Your task to perform on an android device: Open calendar and show me the third week of next month Image 0: 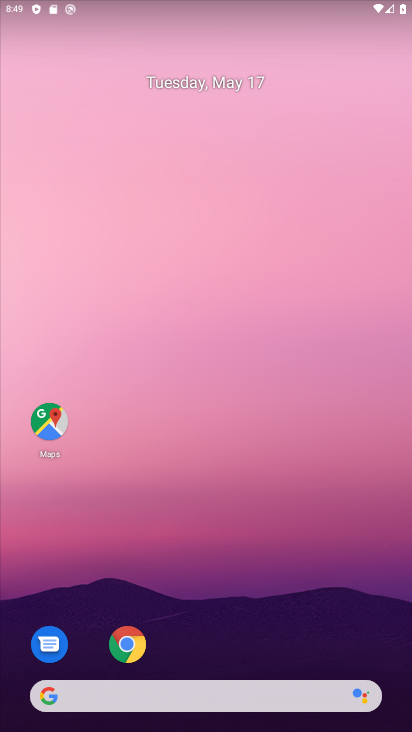
Step 0: press home button
Your task to perform on an android device: Open calendar and show me the third week of next month Image 1: 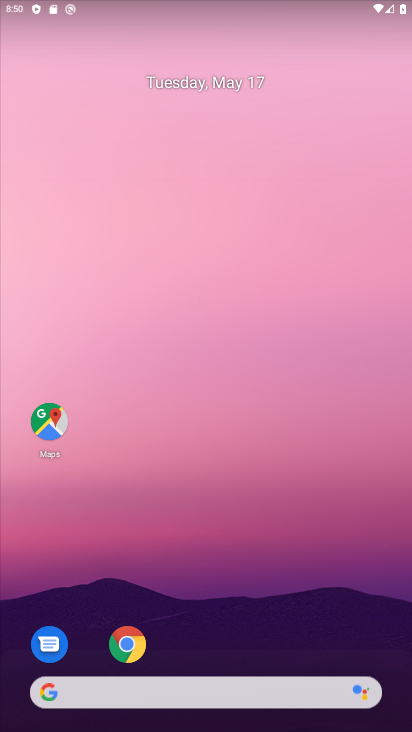
Step 1: drag from (216, 653) to (229, 99)
Your task to perform on an android device: Open calendar and show me the third week of next month Image 2: 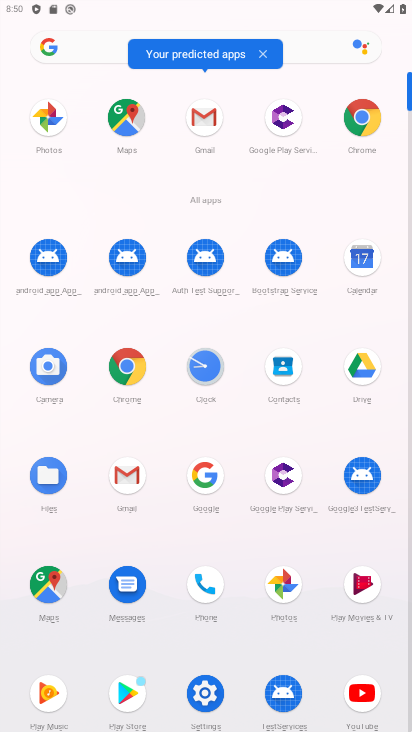
Step 2: click (363, 255)
Your task to perform on an android device: Open calendar and show me the third week of next month Image 3: 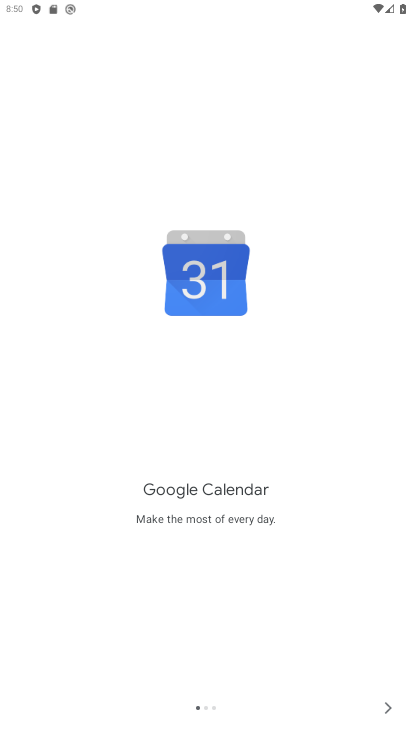
Step 3: click (387, 702)
Your task to perform on an android device: Open calendar and show me the third week of next month Image 4: 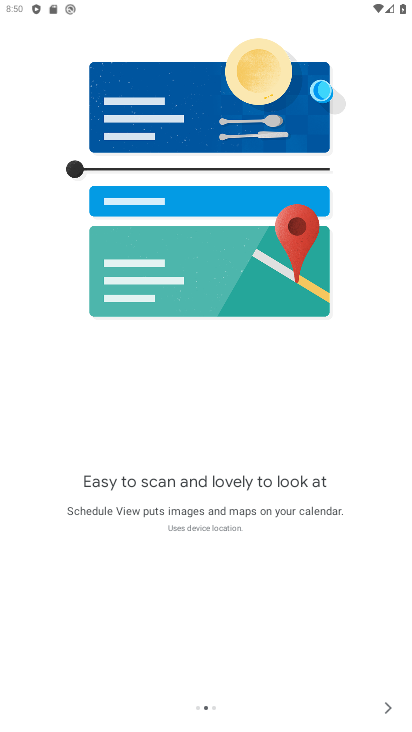
Step 4: click (387, 702)
Your task to perform on an android device: Open calendar and show me the third week of next month Image 5: 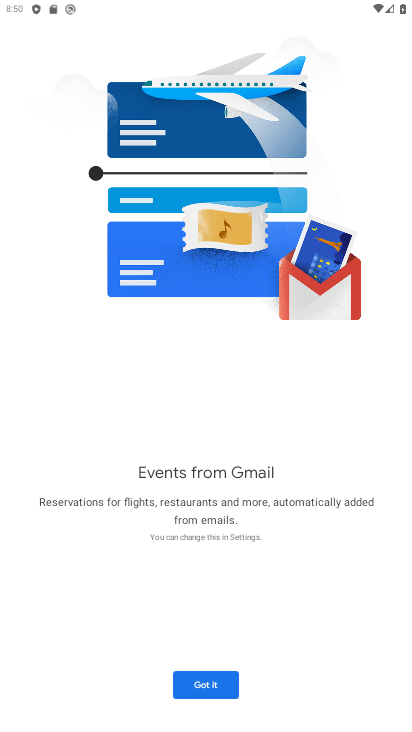
Step 5: click (210, 682)
Your task to perform on an android device: Open calendar and show me the third week of next month Image 6: 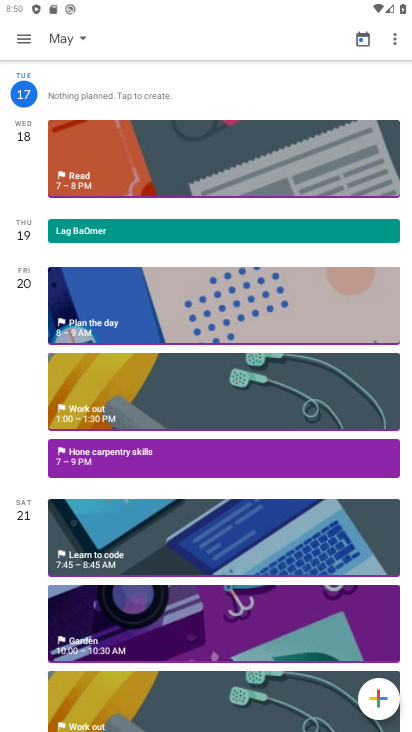
Step 6: click (24, 36)
Your task to perform on an android device: Open calendar and show me the third week of next month Image 7: 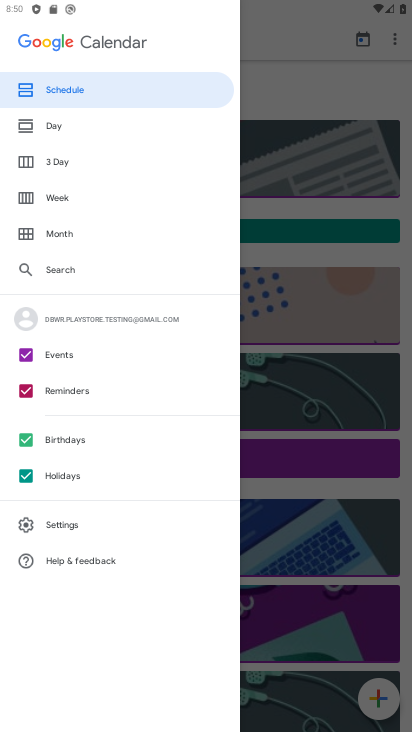
Step 7: click (52, 193)
Your task to perform on an android device: Open calendar and show me the third week of next month Image 8: 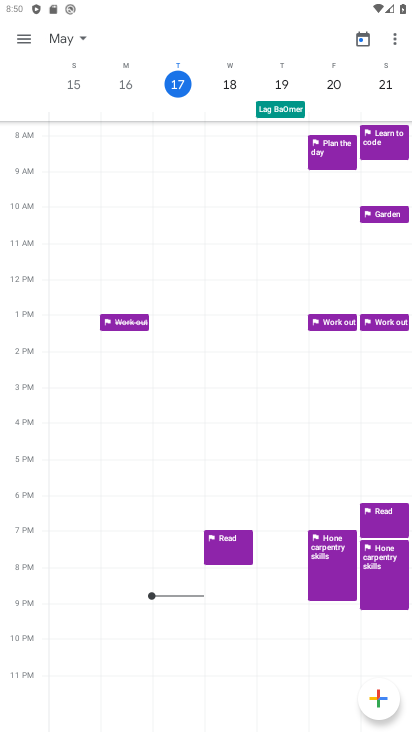
Step 8: drag from (382, 80) to (37, 89)
Your task to perform on an android device: Open calendar and show me the third week of next month Image 9: 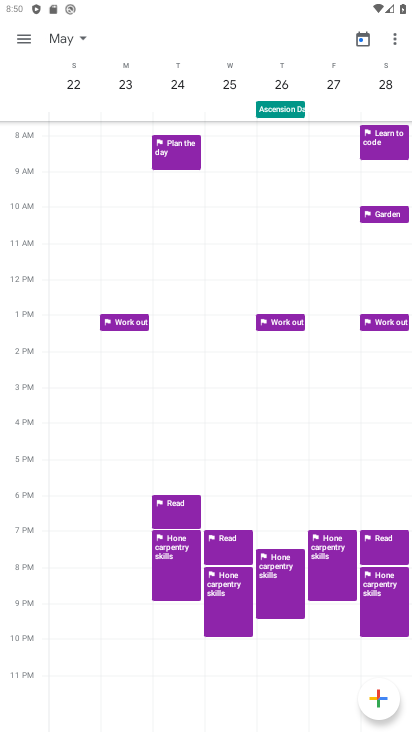
Step 9: drag from (383, 77) to (48, 80)
Your task to perform on an android device: Open calendar and show me the third week of next month Image 10: 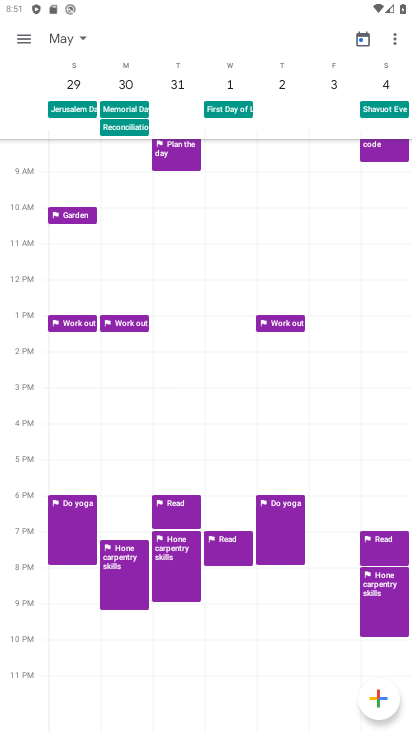
Step 10: drag from (374, 78) to (87, 73)
Your task to perform on an android device: Open calendar and show me the third week of next month Image 11: 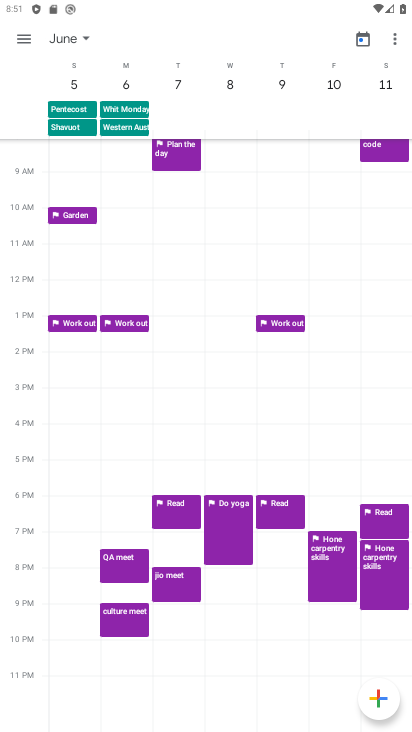
Step 11: drag from (382, 79) to (52, 76)
Your task to perform on an android device: Open calendar and show me the third week of next month Image 12: 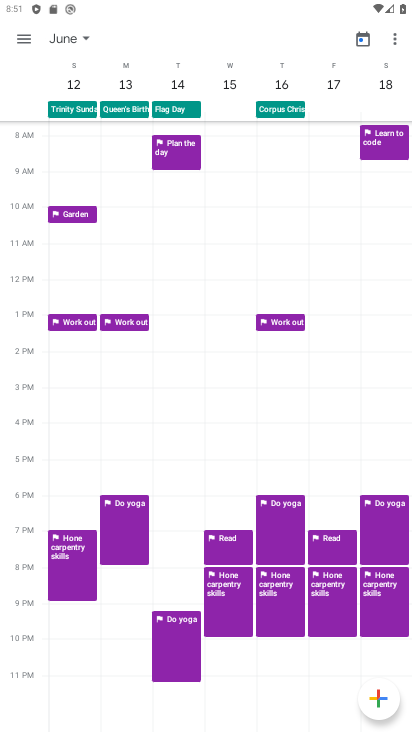
Step 12: click (71, 80)
Your task to perform on an android device: Open calendar and show me the third week of next month Image 13: 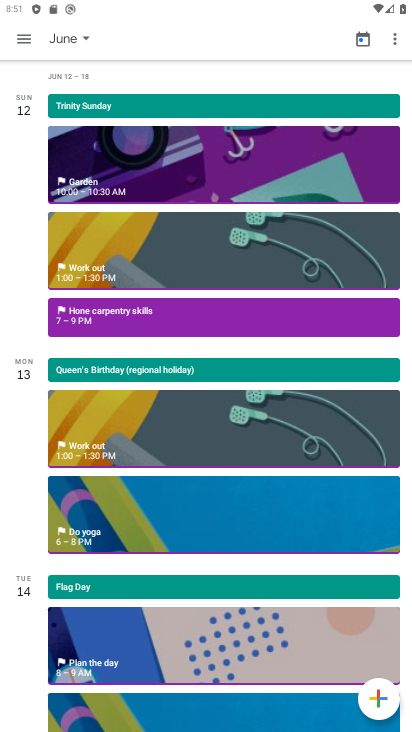
Step 13: task complete